Your task to perform on an android device: turn on location history Image 0: 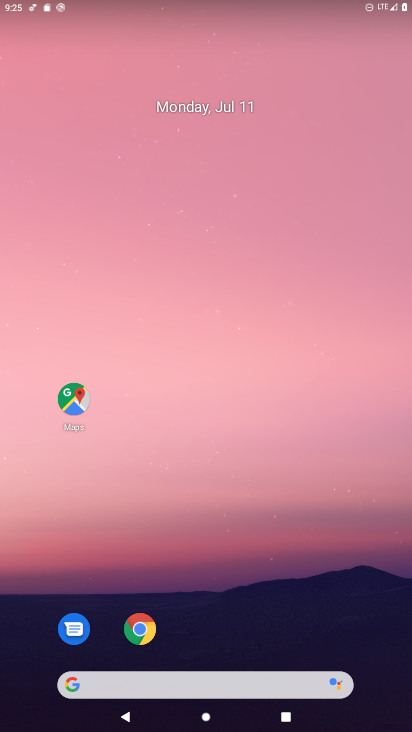
Step 0: drag from (215, 13) to (264, 591)
Your task to perform on an android device: turn on location history Image 1: 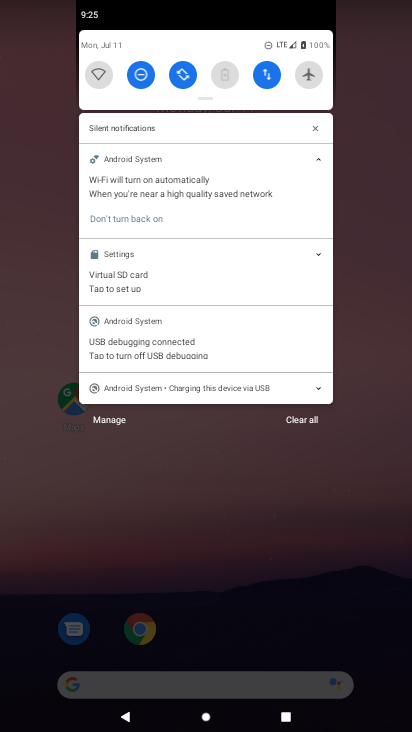
Step 1: drag from (213, 54) to (250, 620)
Your task to perform on an android device: turn on location history Image 2: 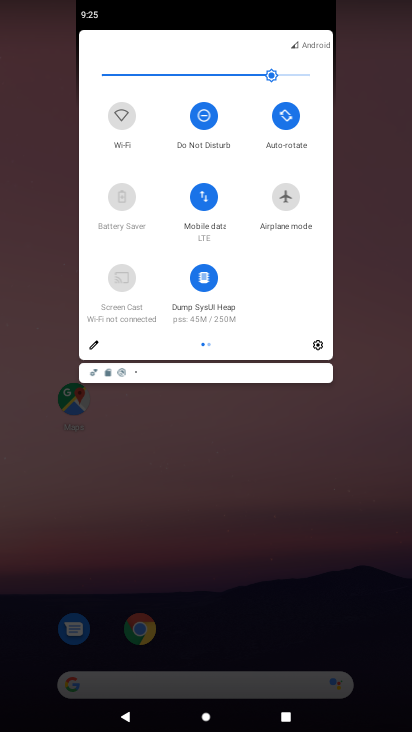
Step 2: click (313, 346)
Your task to perform on an android device: turn on location history Image 3: 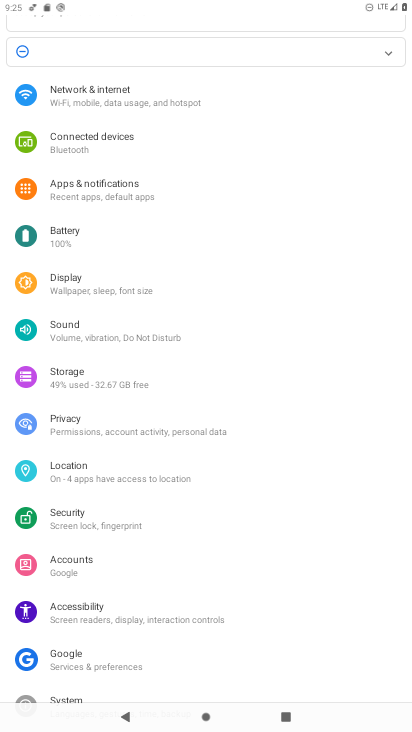
Step 3: click (102, 471)
Your task to perform on an android device: turn on location history Image 4: 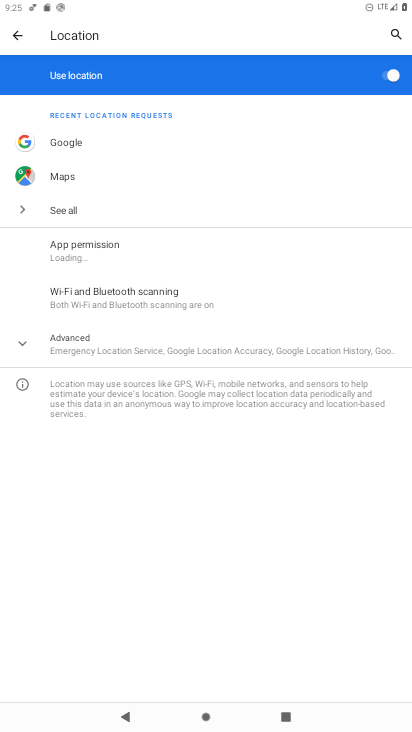
Step 4: click (89, 346)
Your task to perform on an android device: turn on location history Image 5: 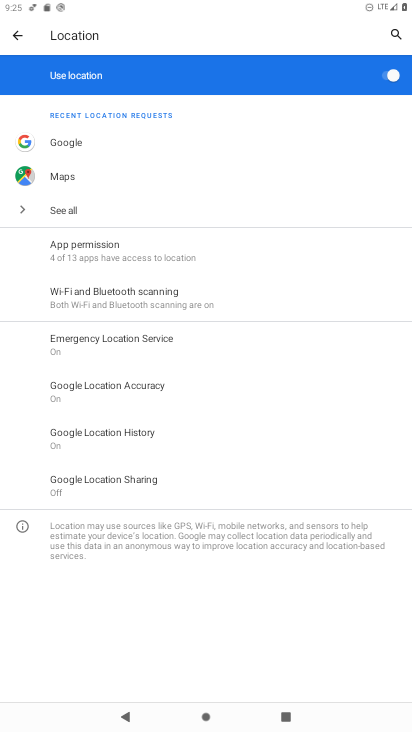
Step 5: click (146, 438)
Your task to perform on an android device: turn on location history Image 6: 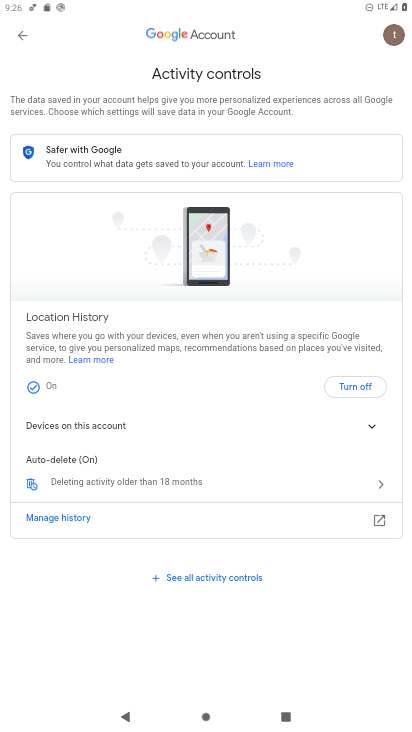
Step 6: task complete